Your task to perform on an android device: turn on bluetooth scan Image 0: 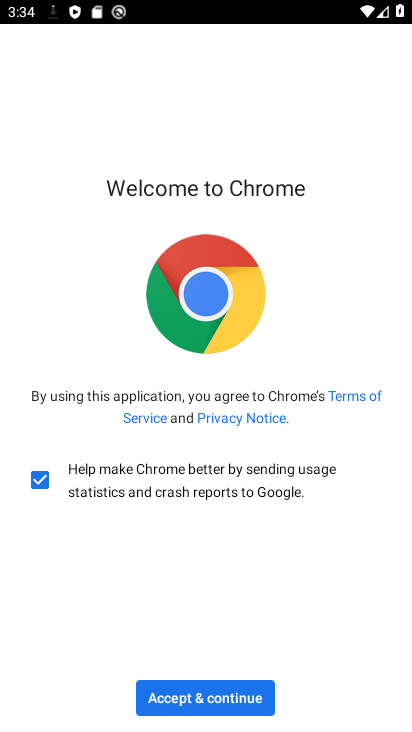
Step 0: press home button
Your task to perform on an android device: turn on bluetooth scan Image 1: 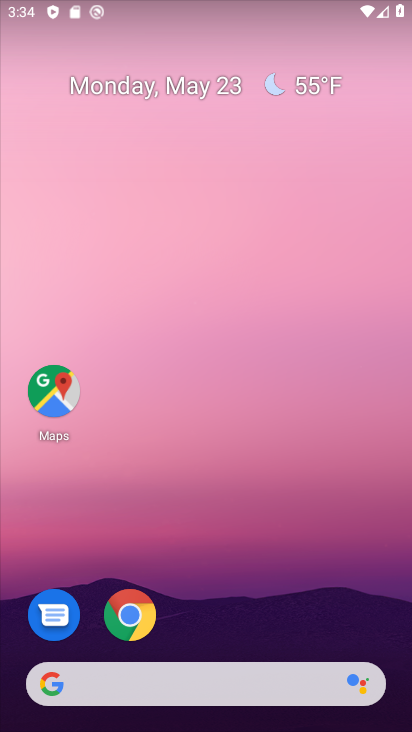
Step 1: drag from (368, 618) to (323, 85)
Your task to perform on an android device: turn on bluetooth scan Image 2: 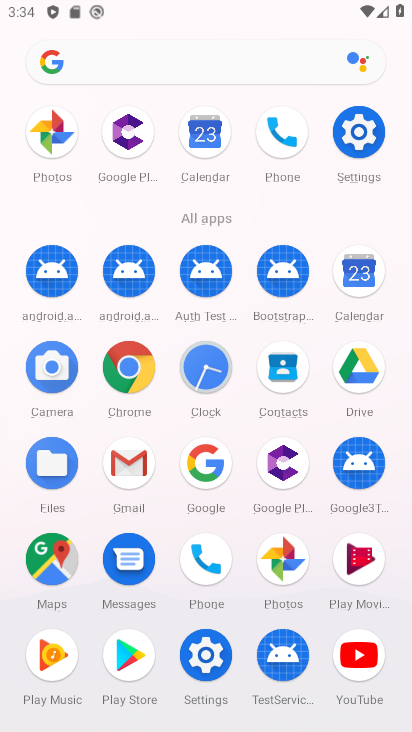
Step 2: click (369, 138)
Your task to perform on an android device: turn on bluetooth scan Image 3: 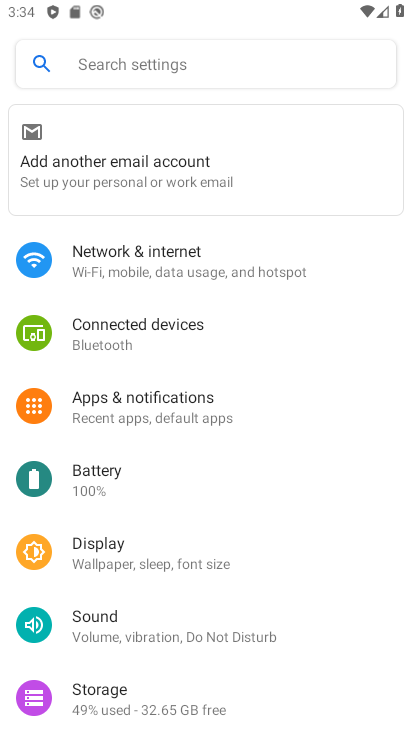
Step 3: drag from (355, 617) to (358, 442)
Your task to perform on an android device: turn on bluetooth scan Image 4: 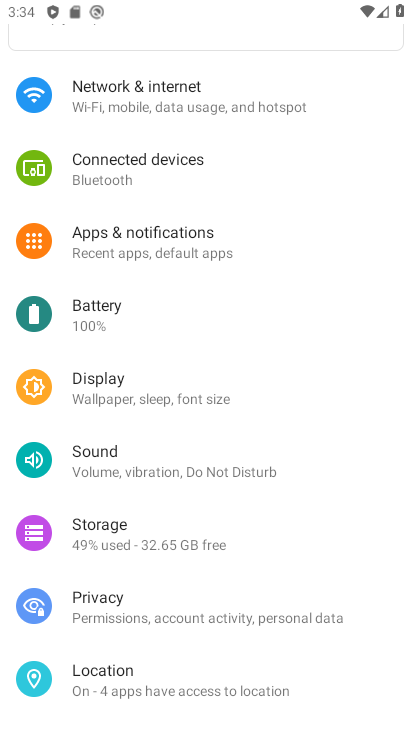
Step 4: drag from (358, 610) to (348, 447)
Your task to perform on an android device: turn on bluetooth scan Image 5: 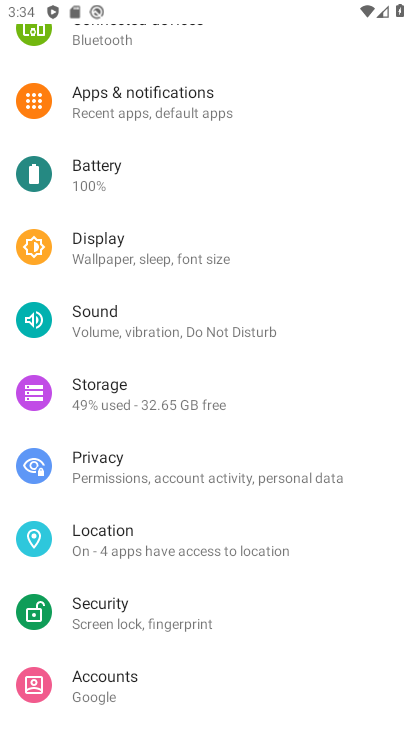
Step 5: drag from (361, 644) to (370, 460)
Your task to perform on an android device: turn on bluetooth scan Image 6: 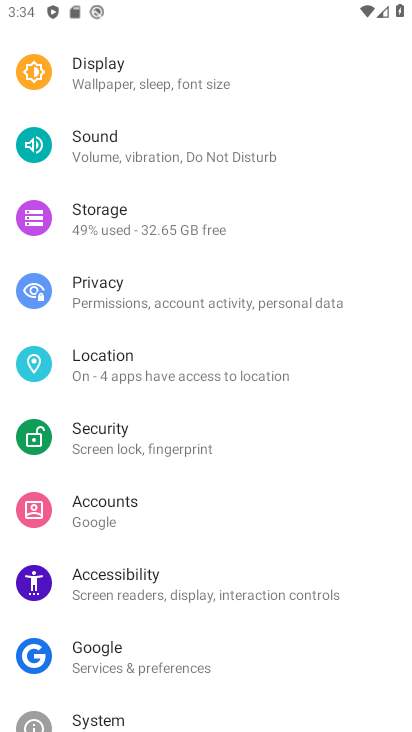
Step 6: drag from (374, 659) to (376, 426)
Your task to perform on an android device: turn on bluetooth scan Image 7: 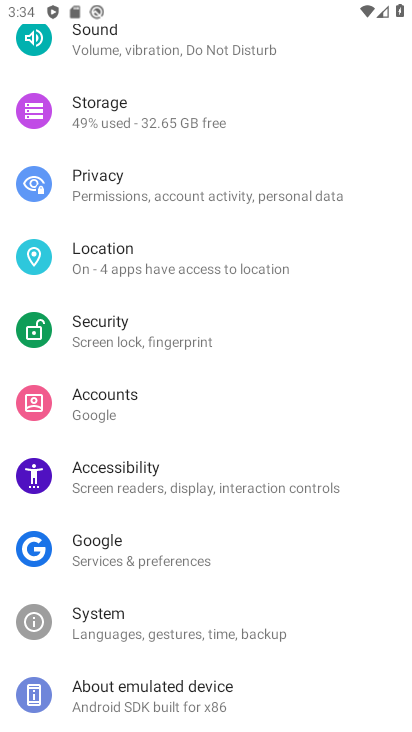
Step 7: drag from (372, 382) to (352, 512)
Your task to perform on an android device: turn on bluetooth scan Image 8: 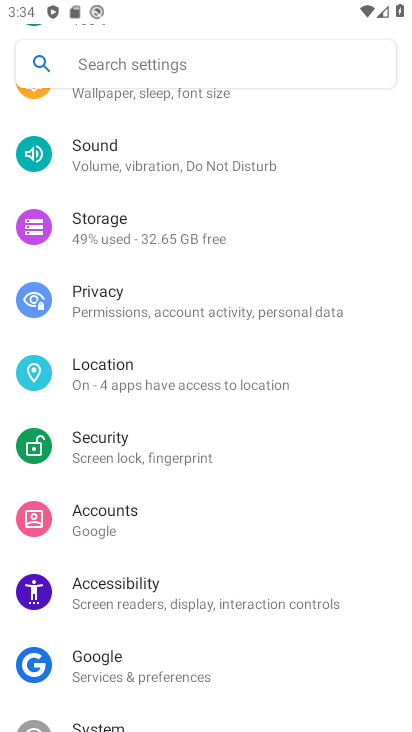
Step 8: drag from (348, 346) to (349, 504)
Your task to perform on an android device: turn on bluetooth scan Image 9: 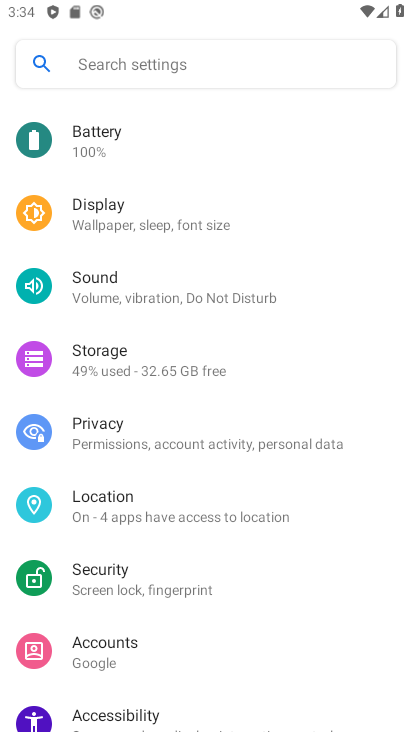
Step 9: drag from (351, 356) to (344, 509)
Your task to perform on an android device: turn on bluetooth scan Image 10: 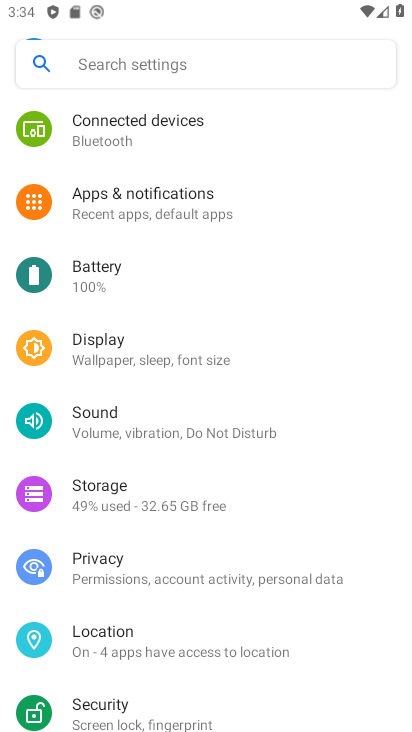
Step 10: drag from (345, 304) to (342, 482)
Your task to perform on an android device: turn on bluetooth scan Image 11: 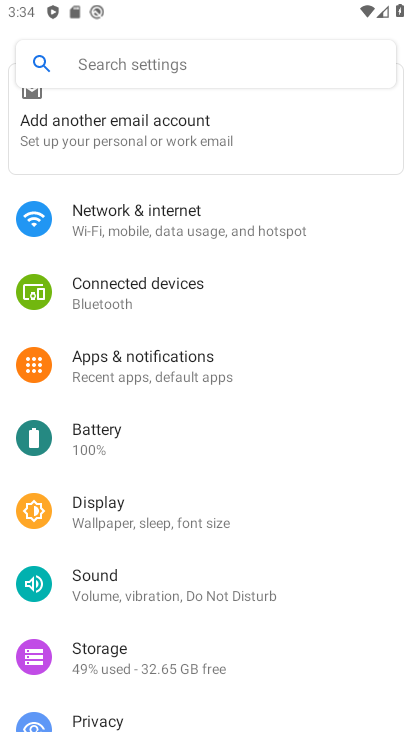
Step 11: drag from (327, 295) to (321, 473)
Your task to perform on an android device: turn on bluetooth scan Image 12: 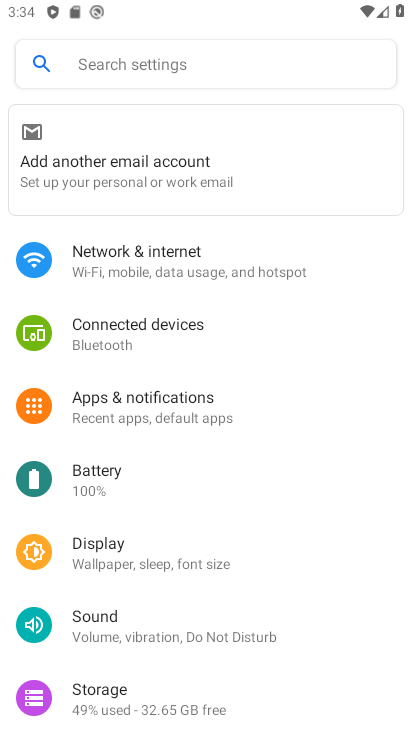
Step 12: drag from (344, 556) to (340, 372)
Your task to perform on an android device: turn on bluetooth scan Image 13: 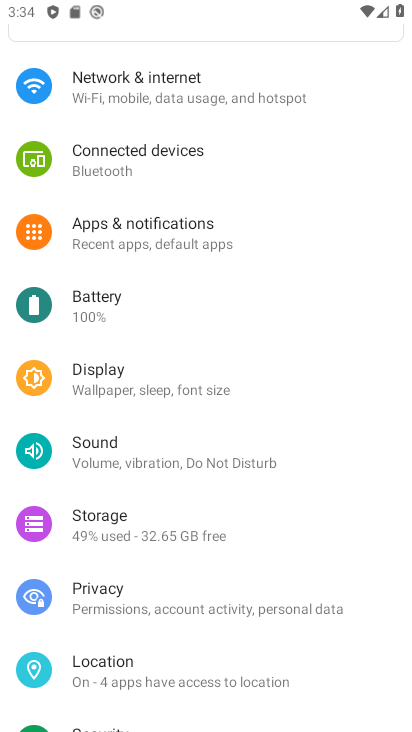
Step 13: drag from (337, 649) to (335, 532)
Your task to perform on an android device: turn on bluetooth scan Image 14: 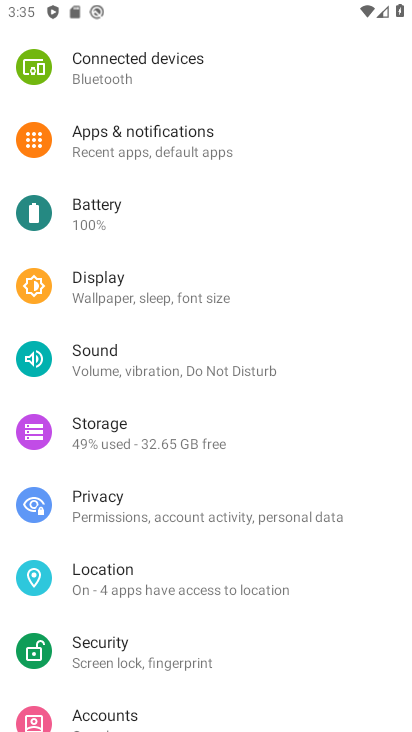
Step 14: click (237, 573)
Your task to perform on an android device: turn on bluetooth scan Image 15: 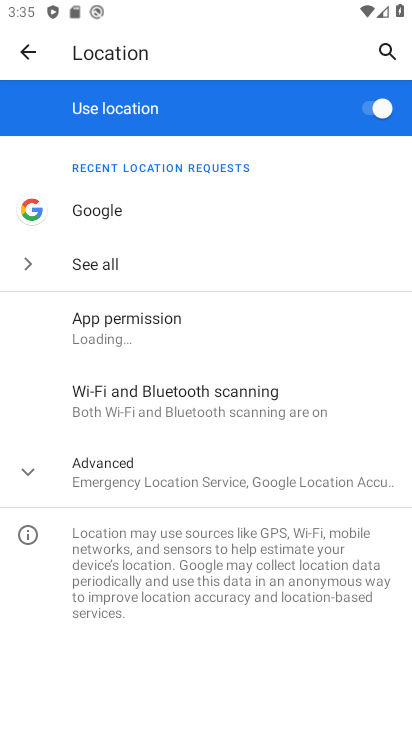
Step 15: click (223, 386)
Your task to perform on an android device: turn on bluetooth scan Image 16: 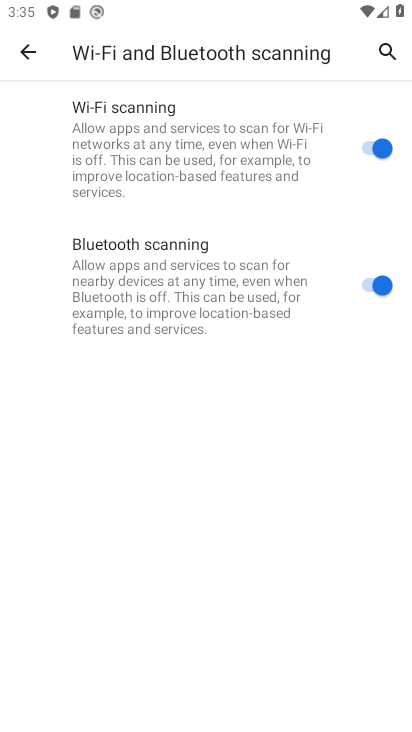
Step 16: task complete